Your task to perform on an android device: change alarm snooze length Image 0: 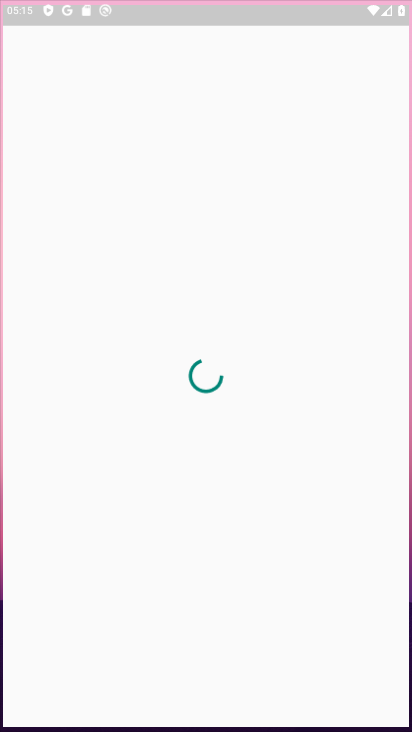
Step 0: press home button
Your task to perform on an android device: change alarm snooze length Image 1: 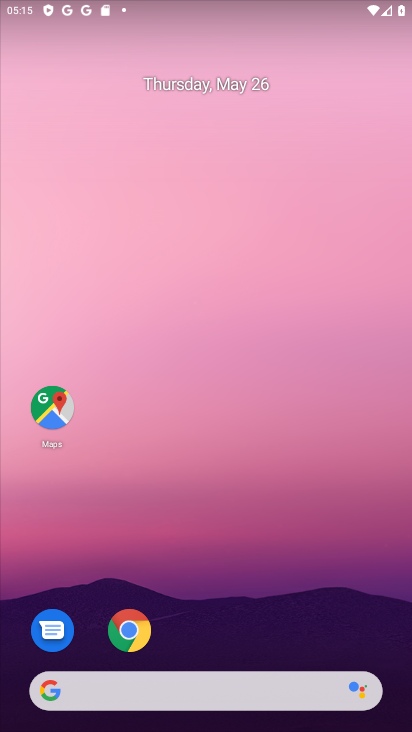
Step 1: drag from (205, 637) to (311, 125)
Your task to perform on an android device: change alarm snooze length Image 2: 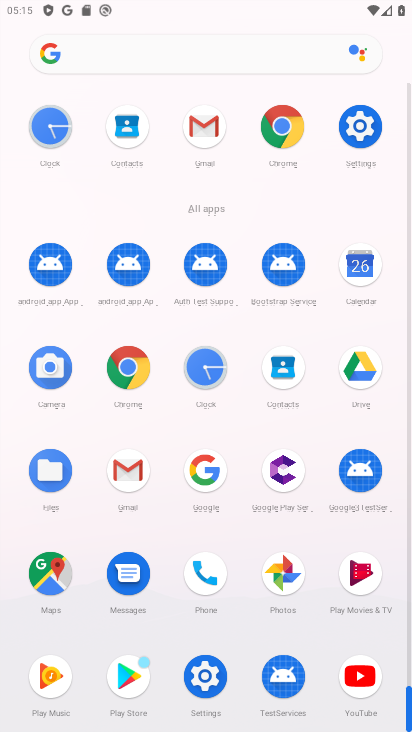
Step 2: click (217, 378)
Your task to perform on an android device: change alarm snooze length Image 3: 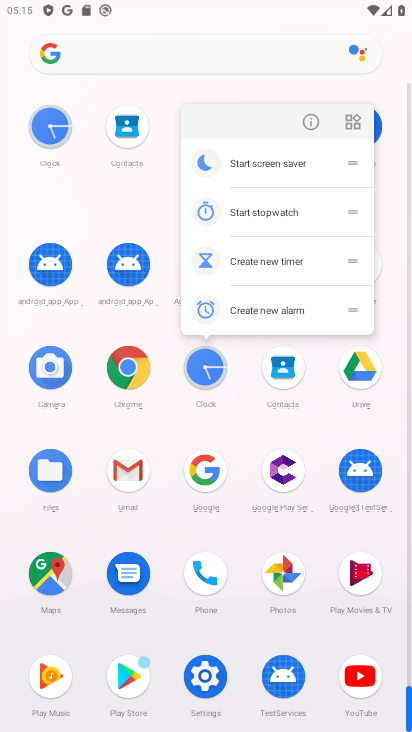
Step 3: click (210, 370)
Your task to perform on an android device: change alarm snooze length Image 4: 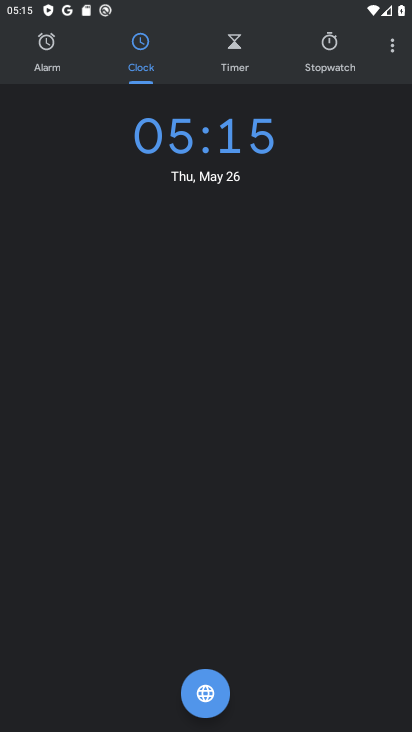
Step 4: click (387, 46)
Your task to perform on an android device: change alarm snooze length Image 5: 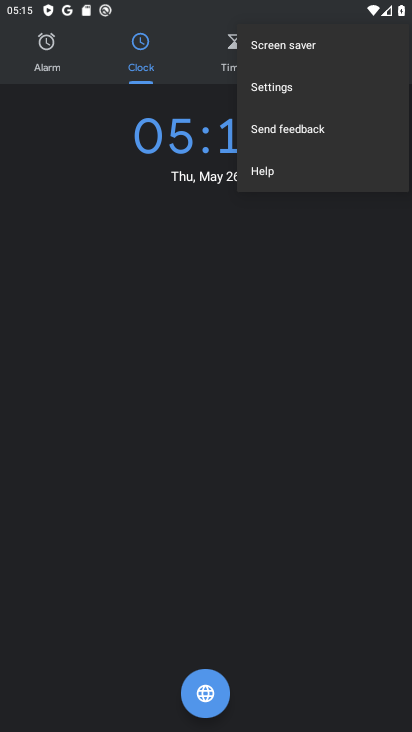
Step 5: click (351, 83)
Your task to perform on an android device: change alarm snooze length Image 6: 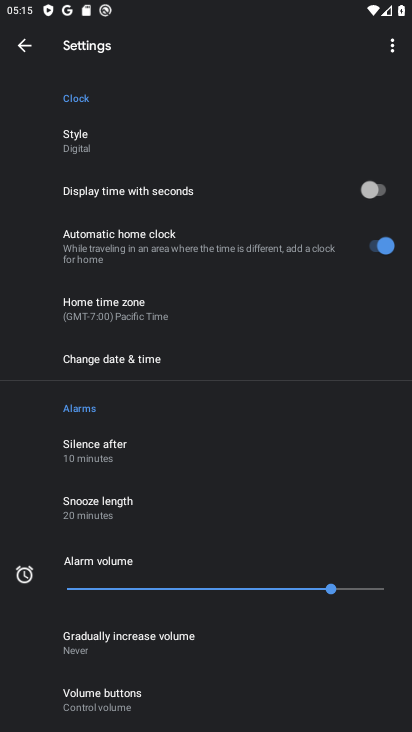
Step 6: drag from (224, 529) to (278, 374)
Your task to perform on an android device: change alarm snooze length Image 7: 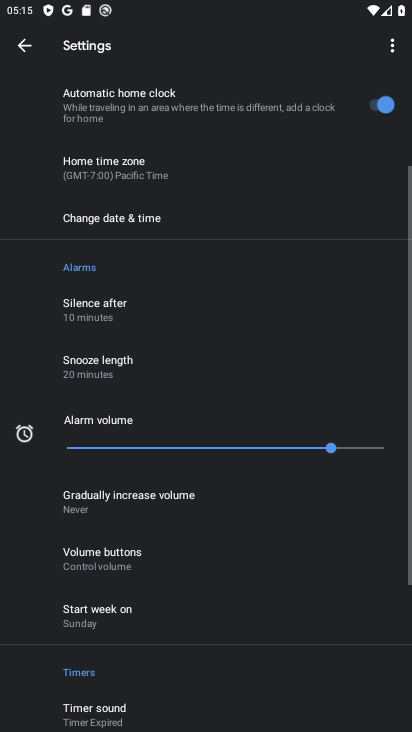
Step 7: click (237, 381)
Your task to perform on an android device: change alarm snooze length Image 8: 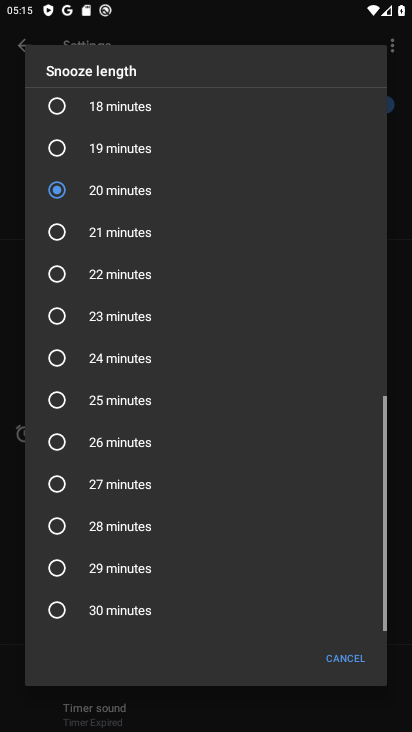
Step 8: drag from (192, 548) to (270, 126)
Your task to perform on an android device: change alarm snooze length Image 9: 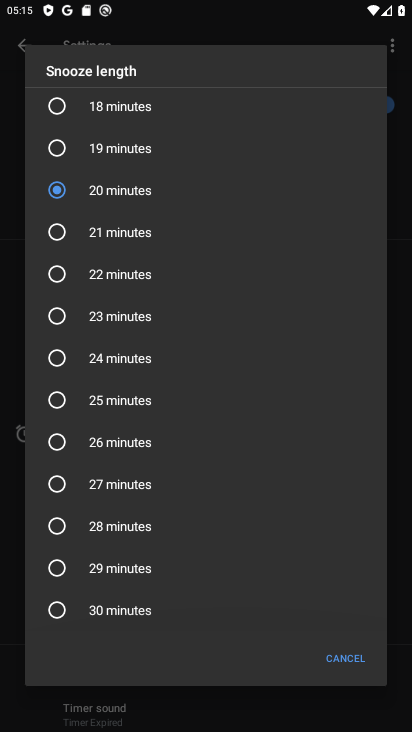
Step 9: click (212, 557)
Your task to perform on an android device: change alarm snooze length Image 10: 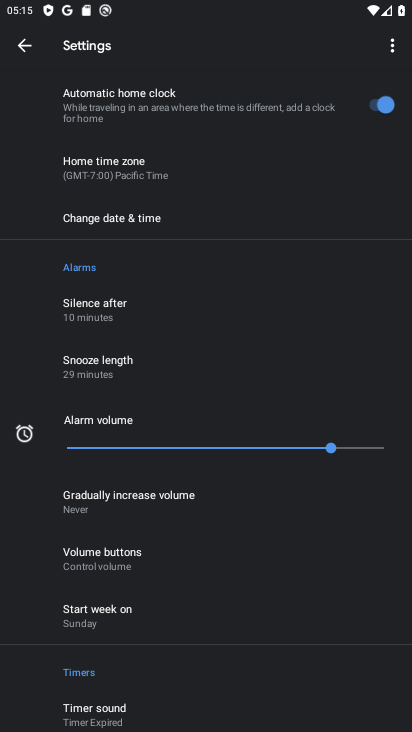
Step 10: task complete